Your task to perform on an android device: turn off picture-in-picture Image 0: 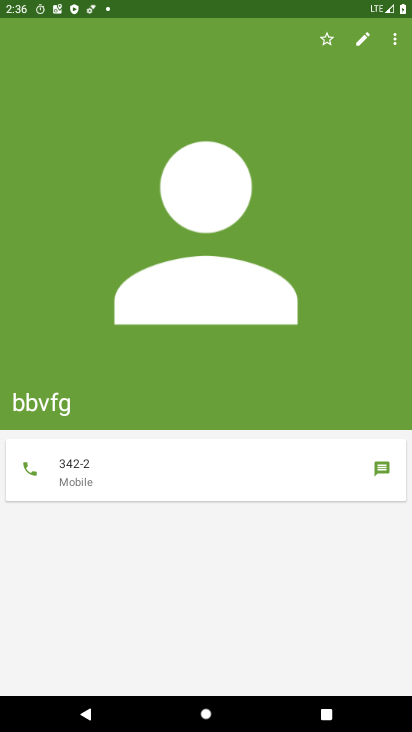
Step 0: press home button
Your task to perform on an android device: turn off picture-in-picture Image 1: 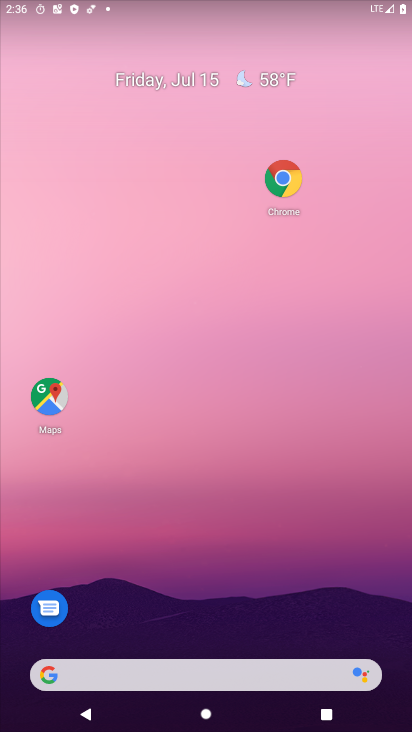
Step 1: drag from (272, 609) to (273, 28)
Your task to perform on an android device: turn off picture-in-picture Image 2: 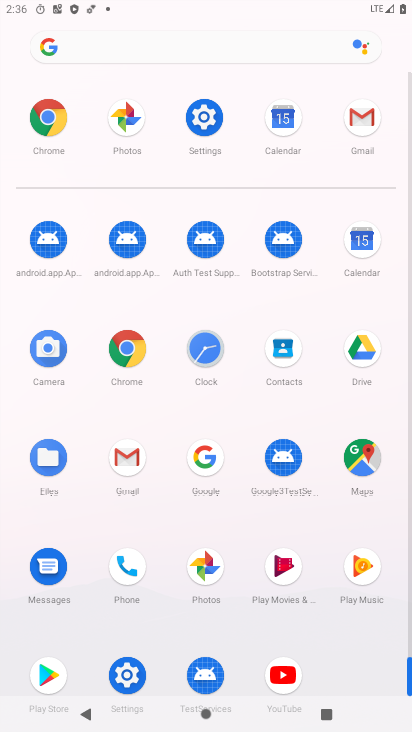
Step 2: click (133, 347)
Your task to perform on an android device: turn off picture-in-picture Image 3: 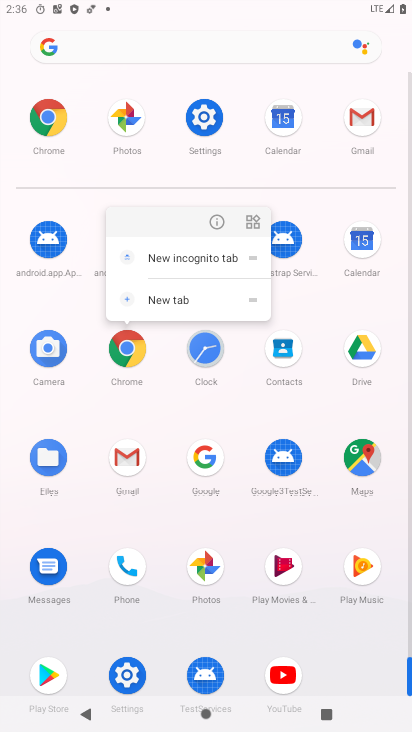
Step 3: click (213, 216)
Your task to perform on an android device: turn off picture-in-picture Image 4: 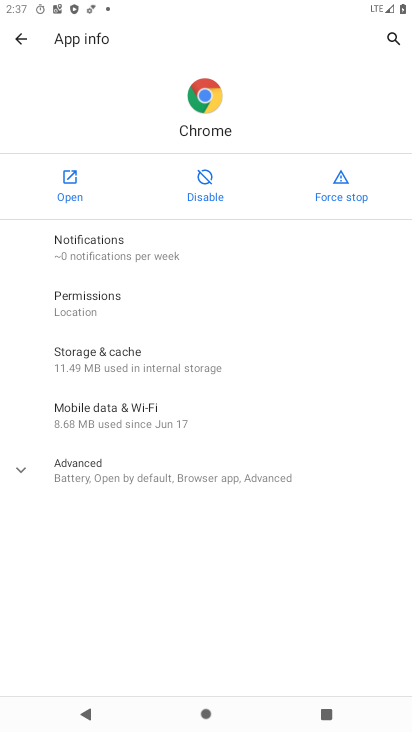
Step 4: click (111, 466)
Your task to perform on an android device: turn off picture-in-picture Image 5: 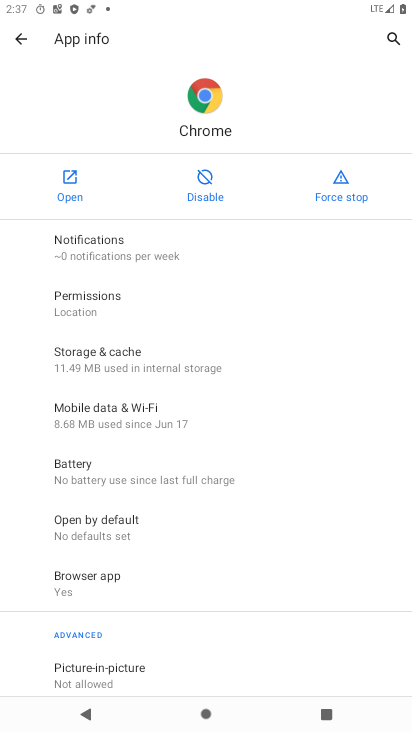
Step 5: click (119, 678)
Your task to perform on an android device: turn off picture-in-picture Image 6: 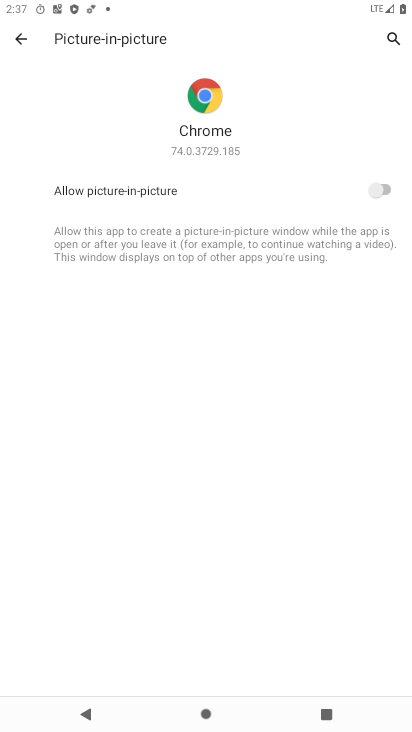
Step 6: task complete